Your task to perform on an android device: Turn on the flashlight Image 0: 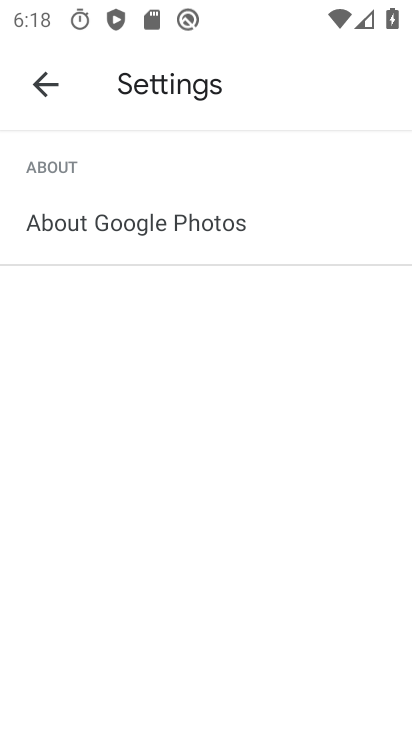
Step 0: press home button
Your task to perform on an android device: Turn on the flashlight Image 1: 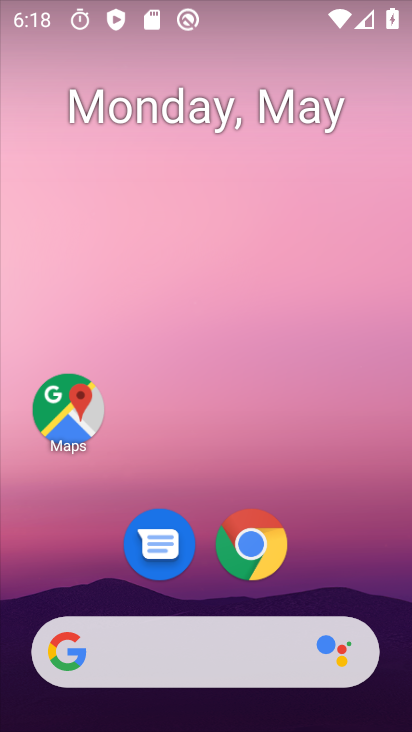
Step 1: task complete